Your task to perform on an android device: make emails show in primary in the gmail app Image 0: 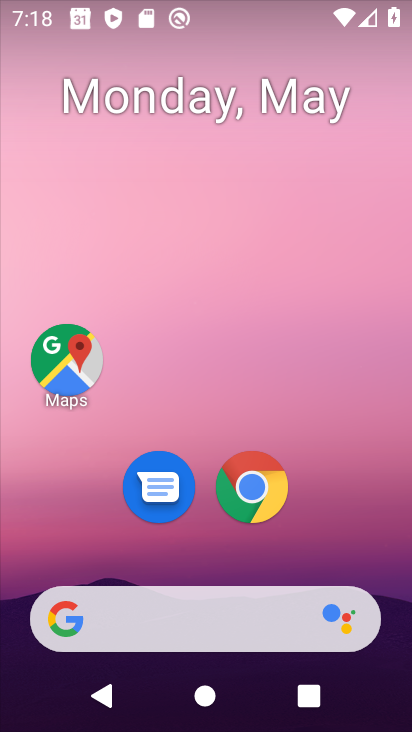
Step 0: drag from (244, 649) to (284, 285)
Your task to perform on an android device: make emails show in primary in the gmail app Image 1: 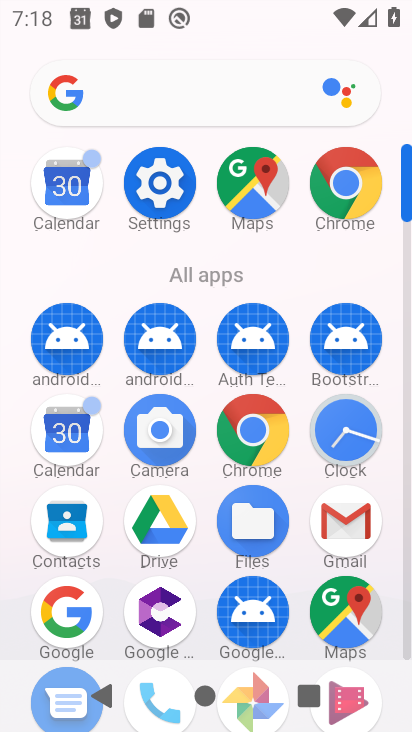
Step 1: click (363, 499)
Your task to perform on an android device: make emails show in primary in the gmail app Image 2: 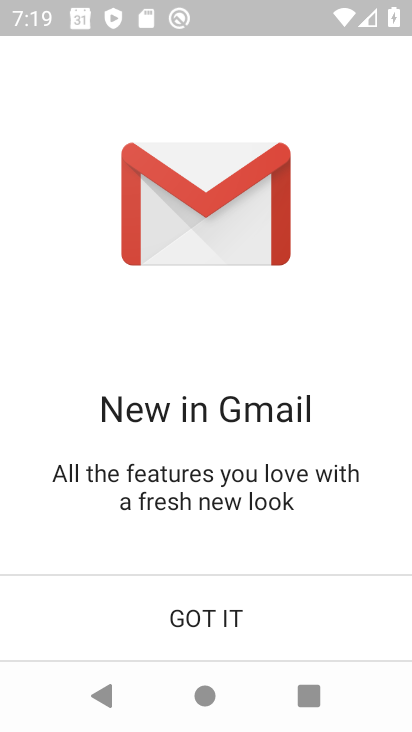
Step 2: click (183, 608)
Your task to perform on an android device: make emails show in primary in the gmail app Image 3: 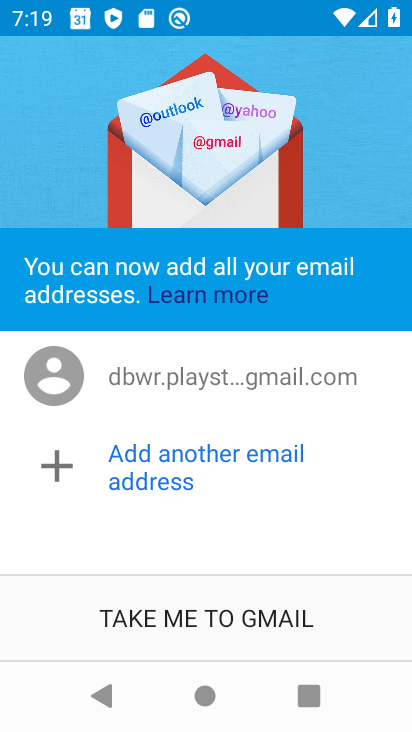
Step 3: click (183, 608)
Your task to perform on an android device: make emails show in primary in the gmail app Image 4: 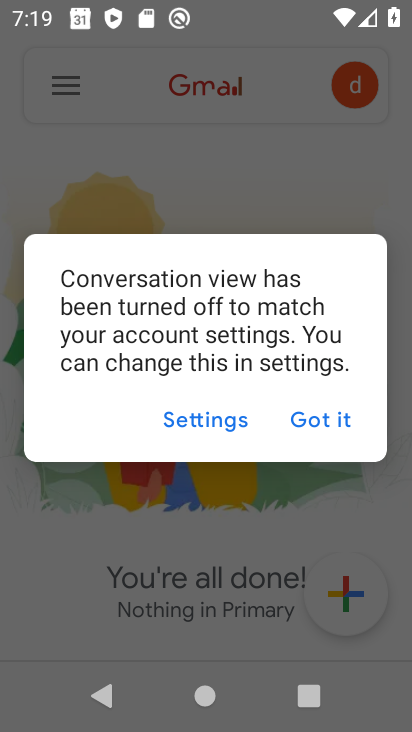
Step 4: click (332, 421)
Your task to perform on an android device: make emails show in primary in the gmail app Image 5: 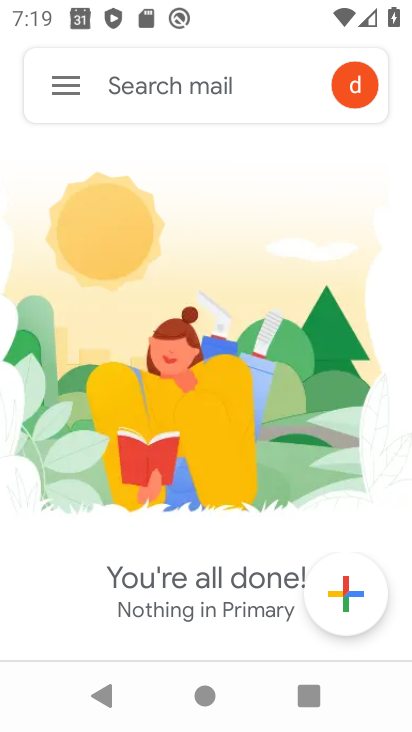
Step 5: click (58, 86)
Your task to perform on an android device: make emails show in primary in the gmail app Image 6: 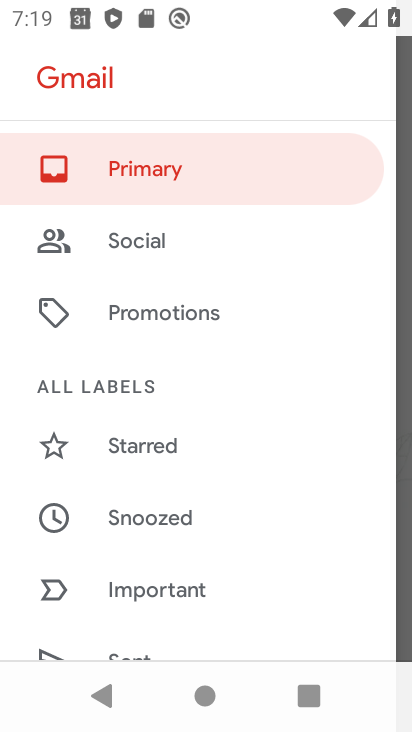
Step 6: drag from (174, 481) to (231, 142)
Your task to perform on an android device: make emails show in primary in the gmail app Image 7: 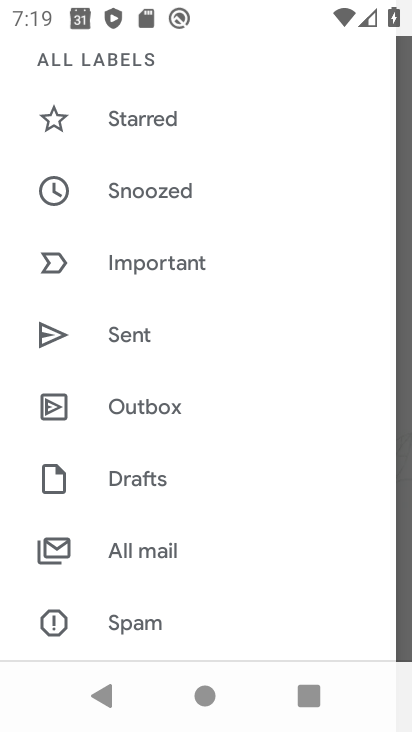
Step 7: drag from (130, 557) to (197, 300)
Your task to perform on an android device: make emails show in primary in the gmail app Image 8: 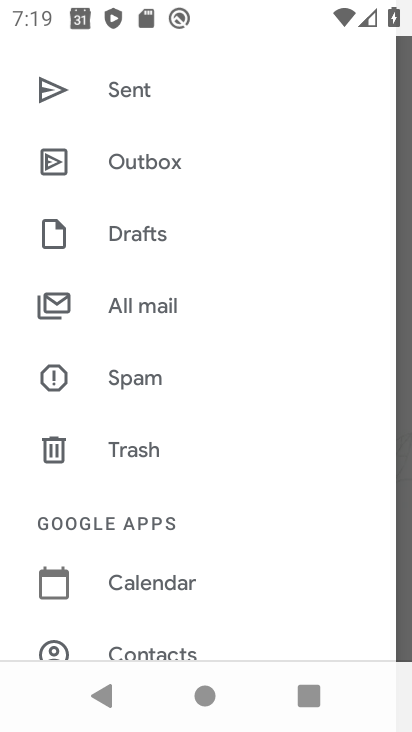
Step 8: drag from (174, 543) to (234, 209)
Your task to perform on an android device: make emails show in primary in the gmail app Image 9: 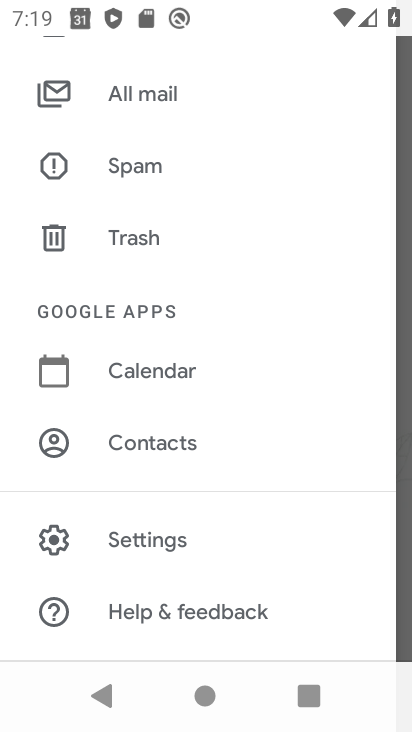
Step 9: click (129, 536)
Your task to perform on an android device: make emails show in primary in the gmail app Image 10: 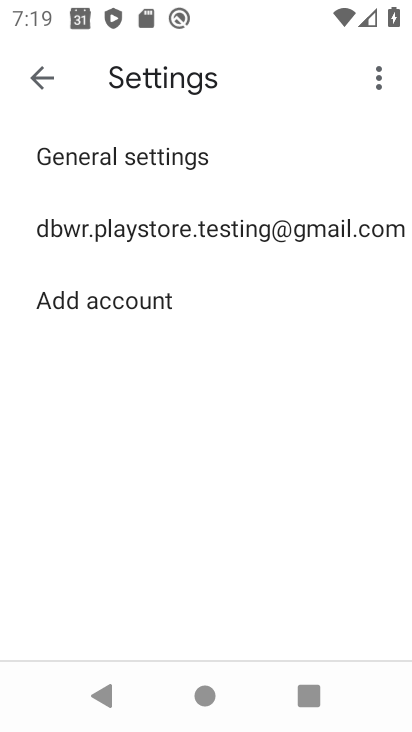
Step 10: click (139, 229)
Your task to perform on an android device: make emails show in primary in the gmail app Image 11: 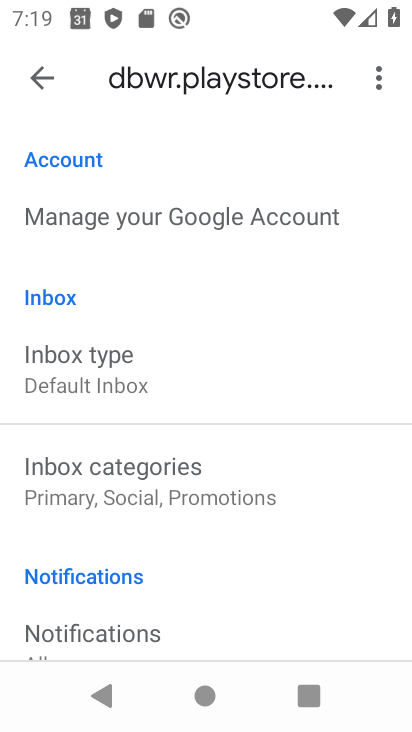
Step 11: click (117, 484)
Your task to perform on an android device: make emails show in primary in the gmail app Image 12: 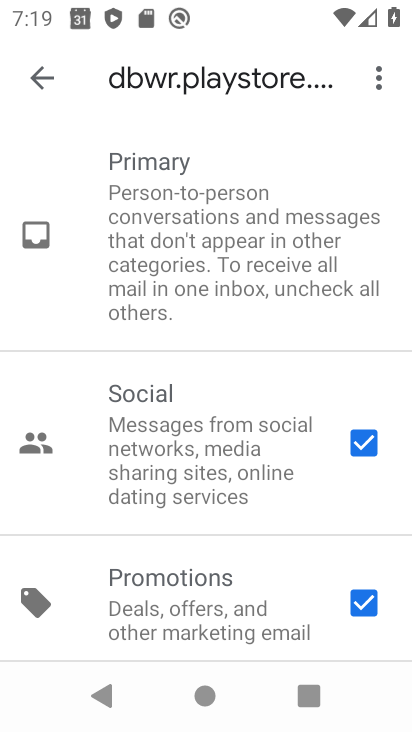
Step 12: task complete